Your task to perform on an android device: Open Wikipedia Image 0: 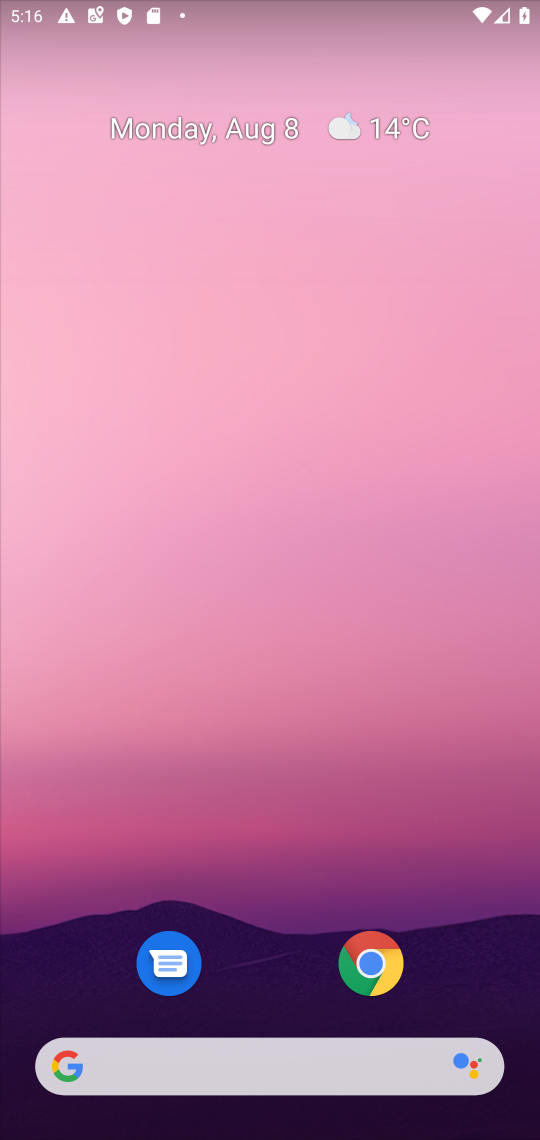
Step 0: click (361, 972)
Your task to perform on an android device: Open Wikipedia Image 1: 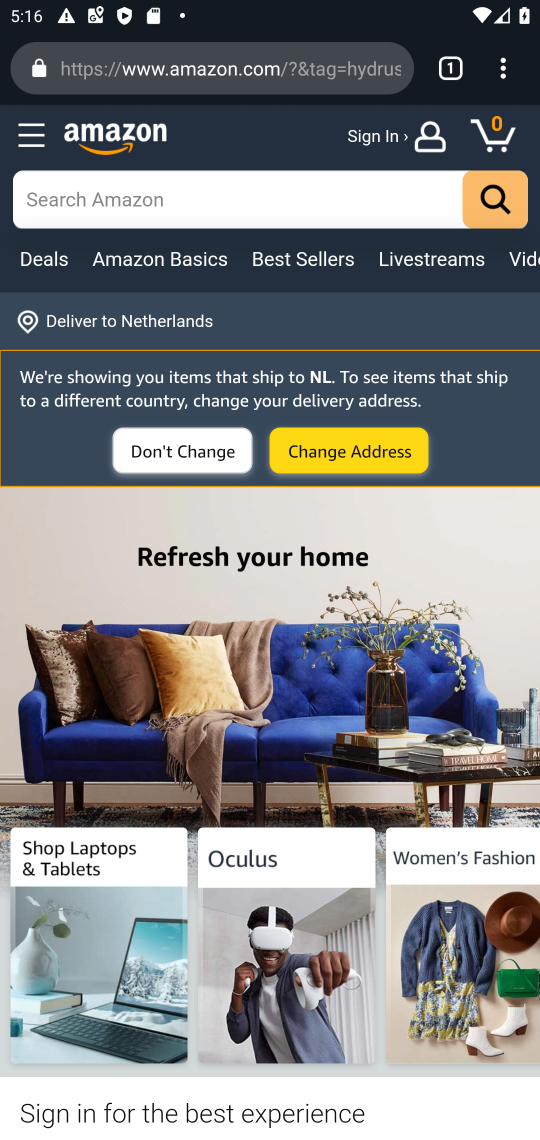
Step 1: click (245, 73)
Your task to perform on an android device: Open Wikipedia Image 2: 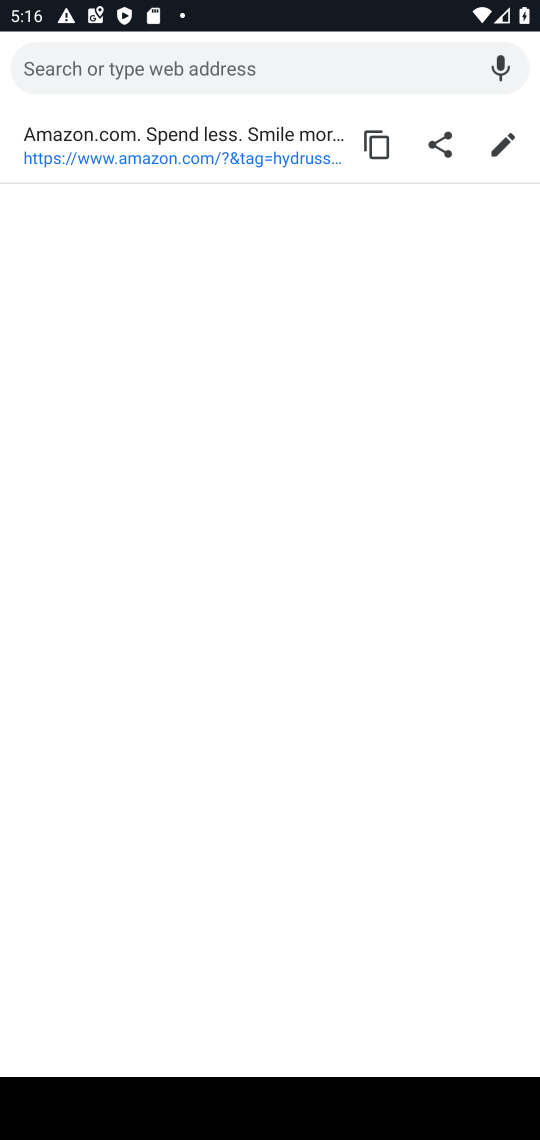
Step 2: type "wikipedia"
Your task to perform on an android device: Open Wikipedia Image 3: 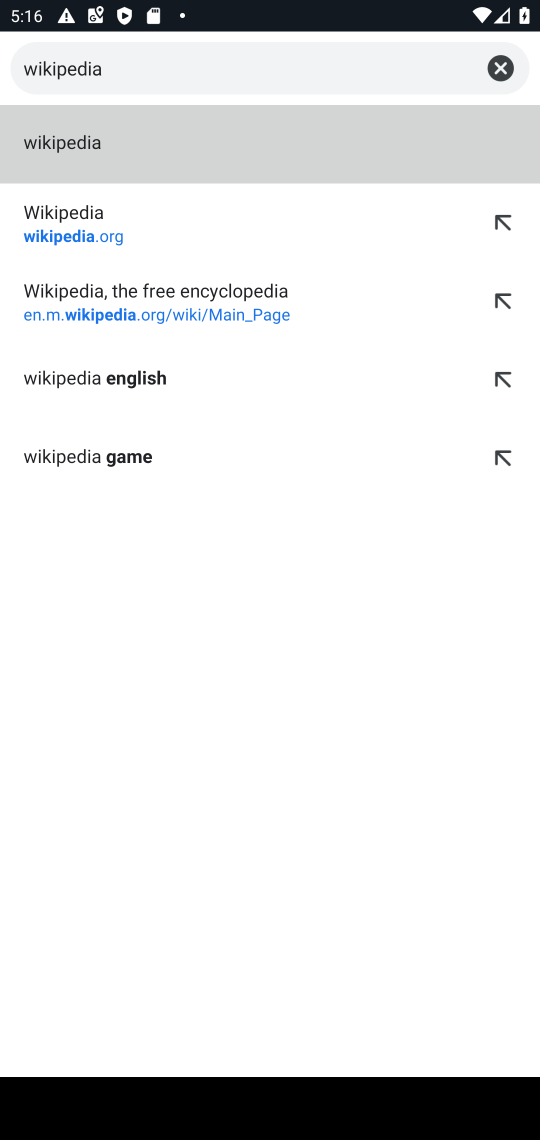
Step 3: click (414, 137)
Your task to perform on an android device: Open Wikipedia Image 4: 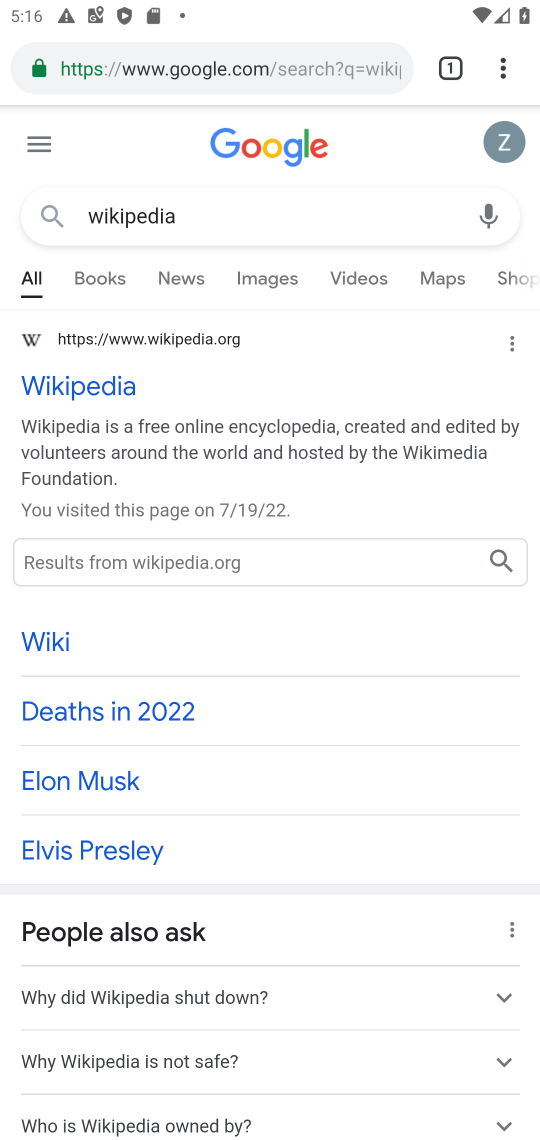
Step 4: click (99, 390)
Your task to perform on an android device: Open Wikipedia Image 5: 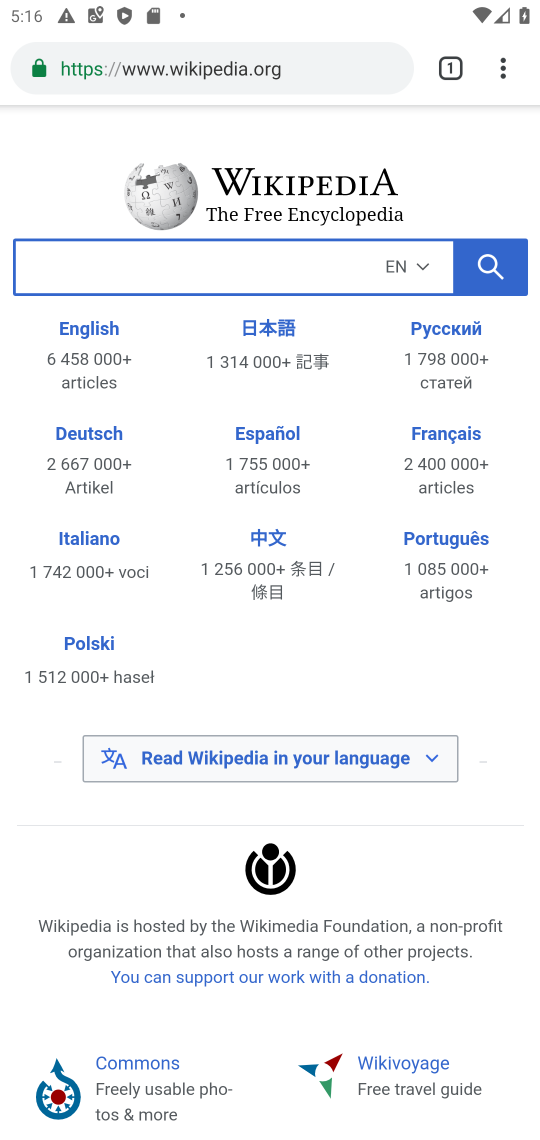
Step 5: task complete